Your task to perform on an android device: What is the recent news? Image 0: 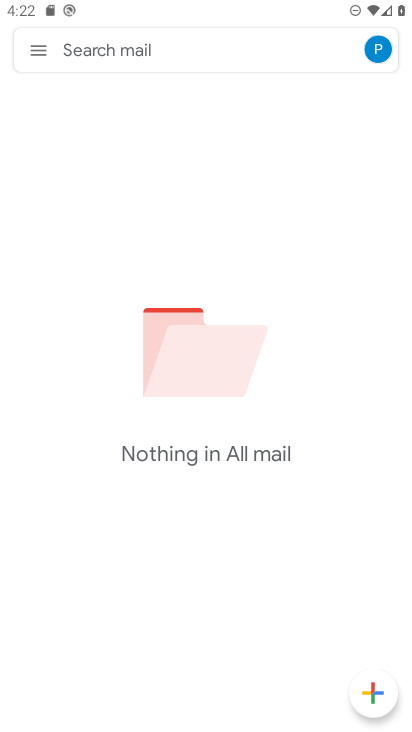
Step 0: press home button
Your task to perform on an android device: What is the recent news? Image 1: 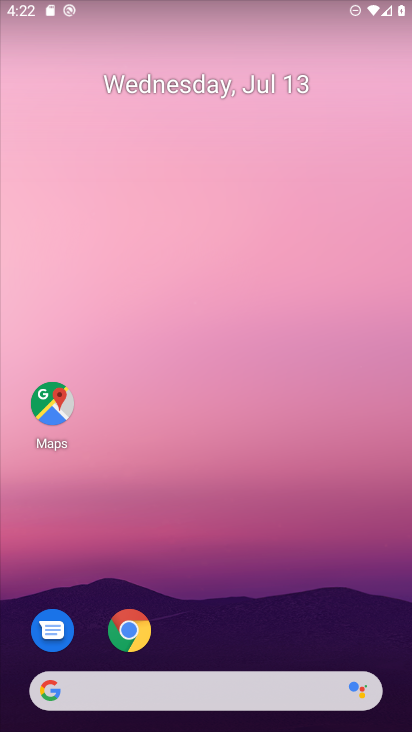
Step 1: click (160, 685)
Your task to perform on an android device: What is the recent news? Image 2: 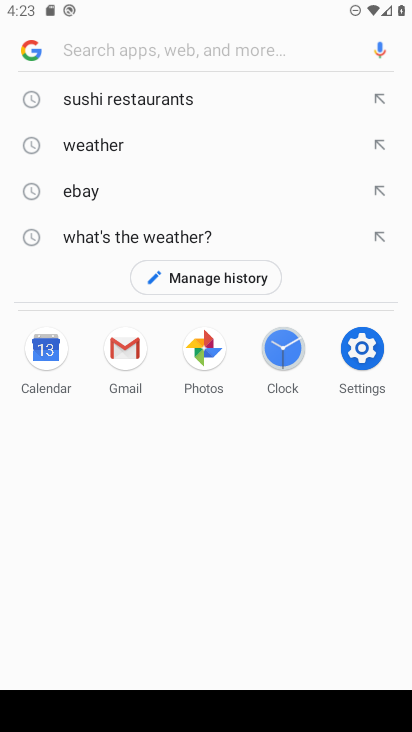
Step 2: type "recent news"
Your task to perform on an android device: What is the recent news? Image 3: 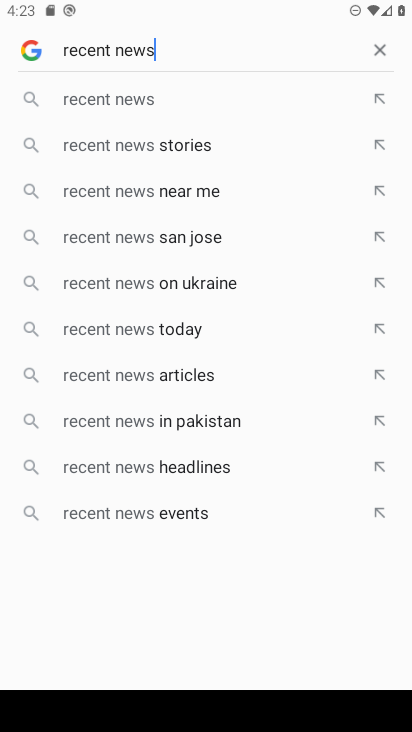
Step 3: click (134, 102)
Your task to perform on an android device: What is the recent news? Image 4: 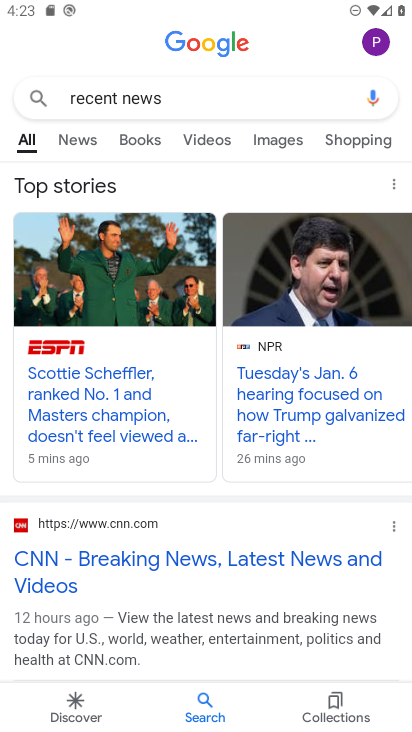
Step 4: task complete